Your task to perform on an android device: When is my next appointment? Image 0: 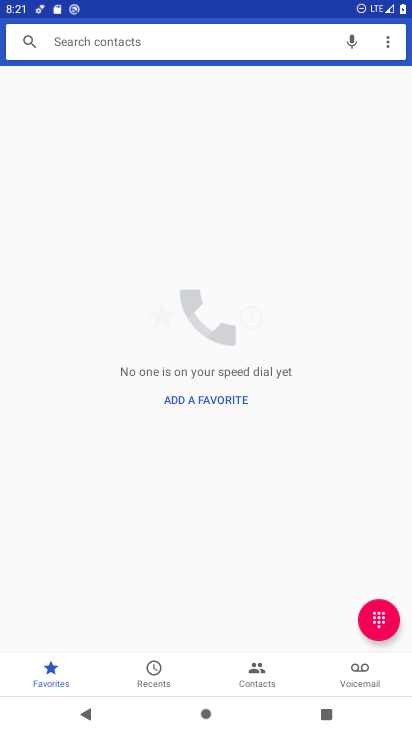
Step 0: press home button
Your task to perform on an android device: When is my next appointment? Image 1: 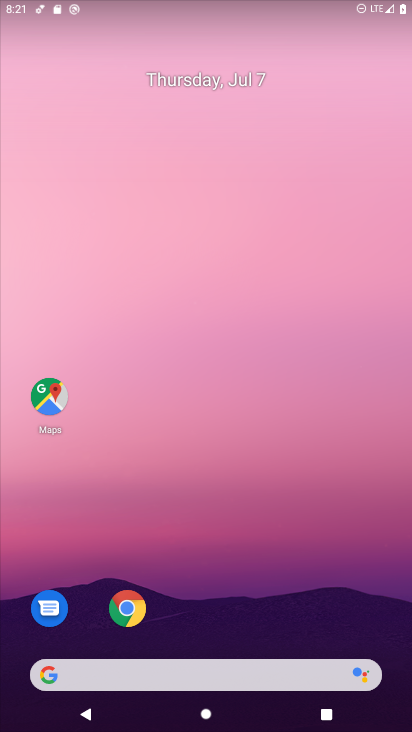
Step 1: drag from (370, 437) to (354, 147)
Your task to perform on an android device: When is my next appointment? Image 2: 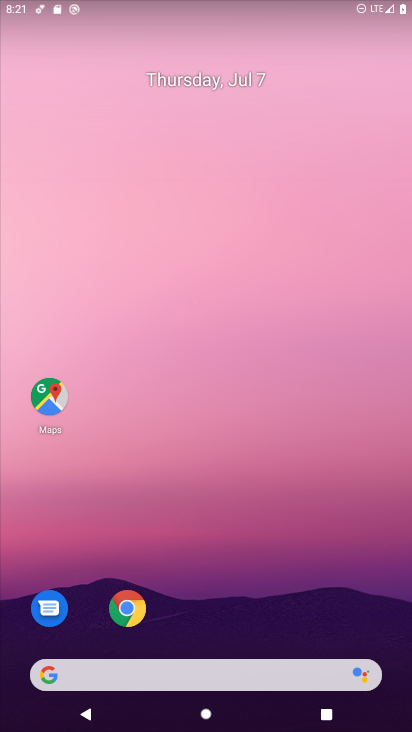
Step 2: drag from (392, 617) to (316, 38)
Your task to perform on an android device: When is my next appointment? Image 3: 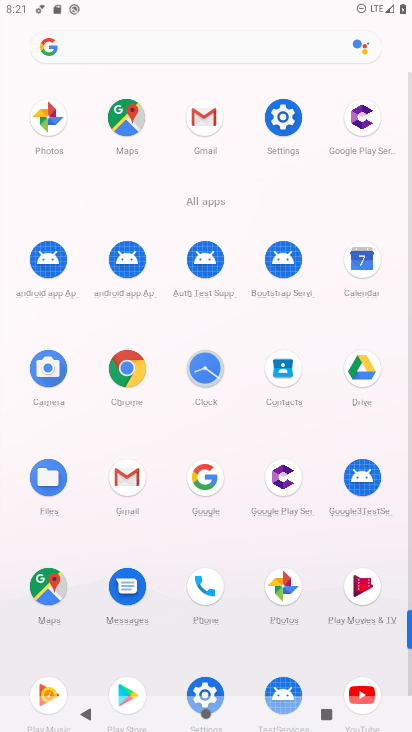
Step 3: click (359, 261)
Your task to perform on an android device: When is my next appointment? Image 4: 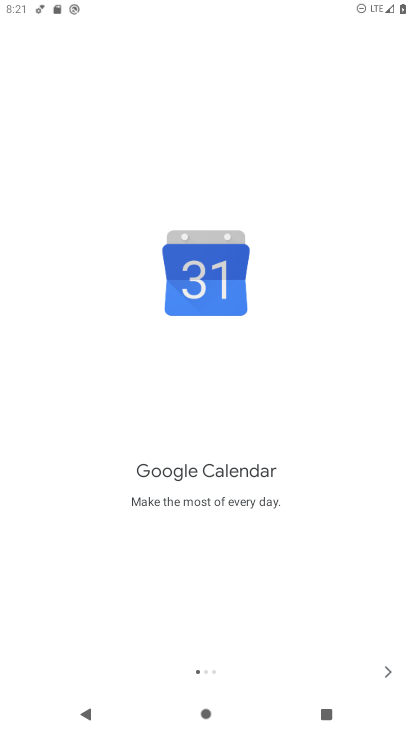
Step 4: click (387, 668)
Your task to perform on an android device: When is my next appointment? Image 5: 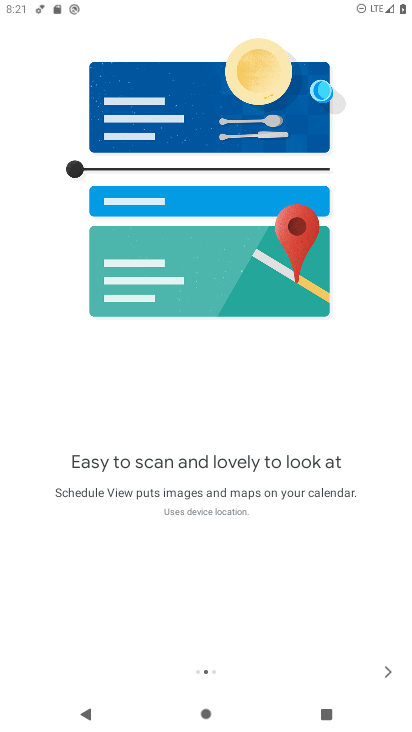
Step 5: click (387, 668)
Your task to perform on an android device: When is my next appointment? Image 6: 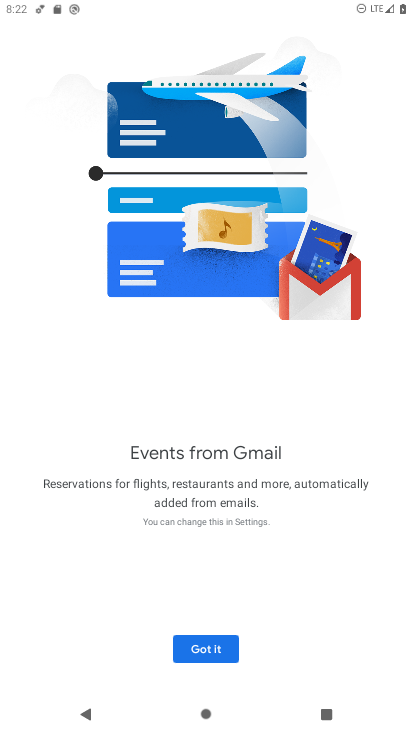
Step 6: click (206, 653)
Your task to perform on an android device: When is my next appointment? Image 7: 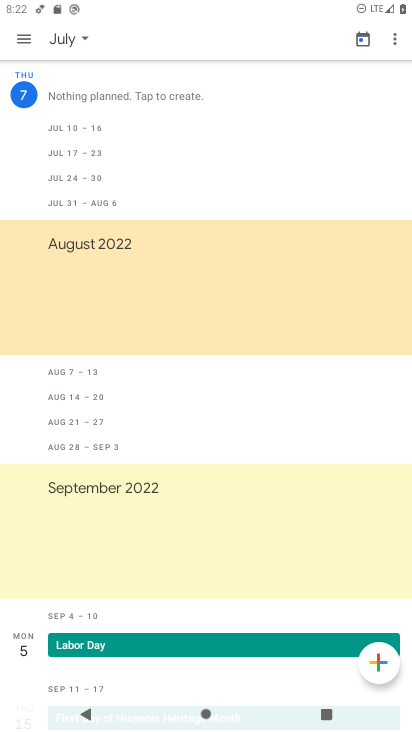
Step 7: click (27, 42)
Your task to perform on an android device: When is my next appointment? Image 8: 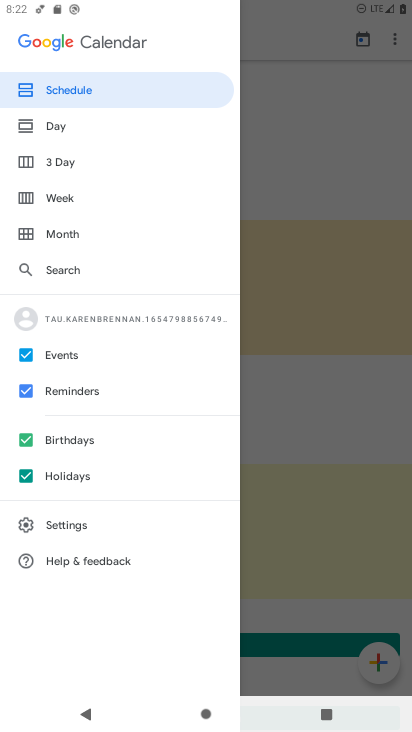
Step 8: click (83, 92)
Your task to perform on an android device: When is my next appointment? Image 9: 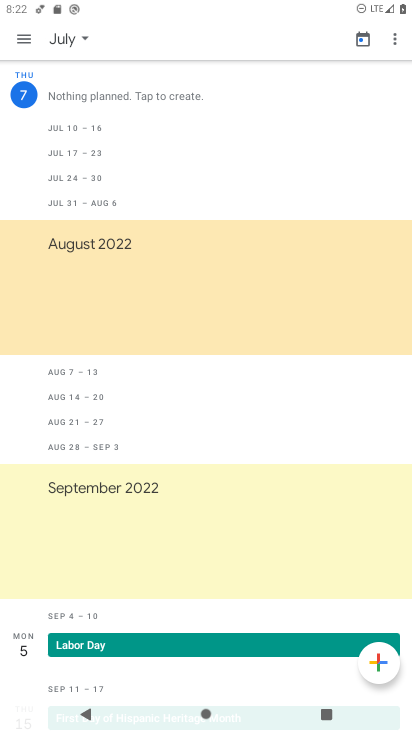
Step 9: task complete